Your task to perform on an android device: Open Youtube and go to "Your channel" Image 0: 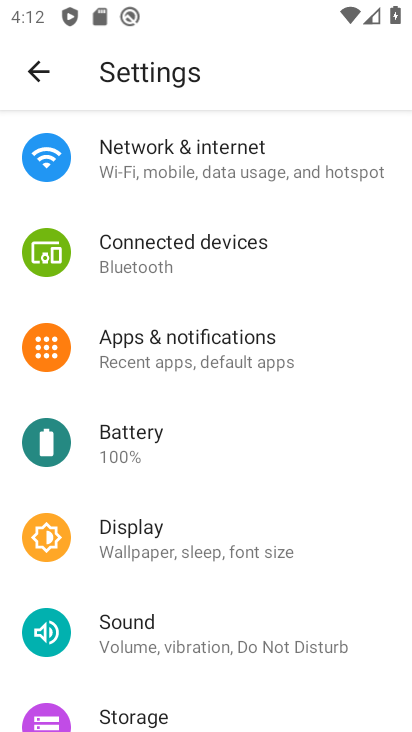
Step 0: press home button
Your task to perform on an android device: Open Youtube and go to "Your channel" Image 1: 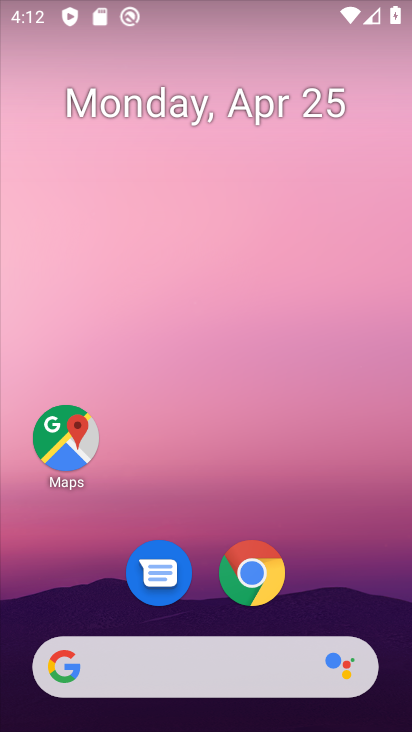
Step 1: drag from (214, 593) to (219, 205)
Your task to perform on an android device: Open Youtube and go to "Your channel" Image 2: 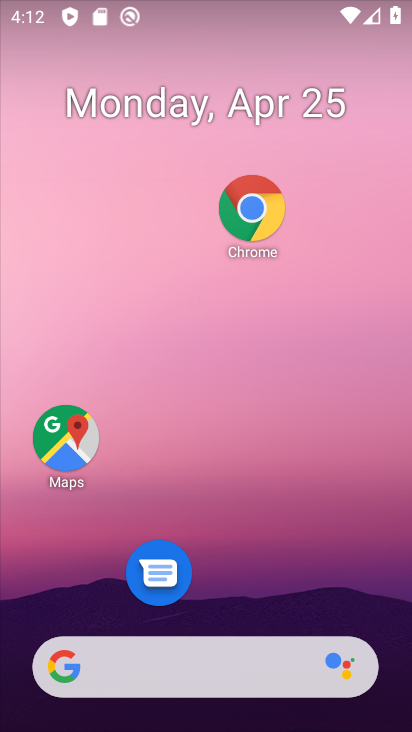
Step 2: click (231, 190)
Your task to perform on an android device: Open Youtube and go to "Your channel" Image 3: 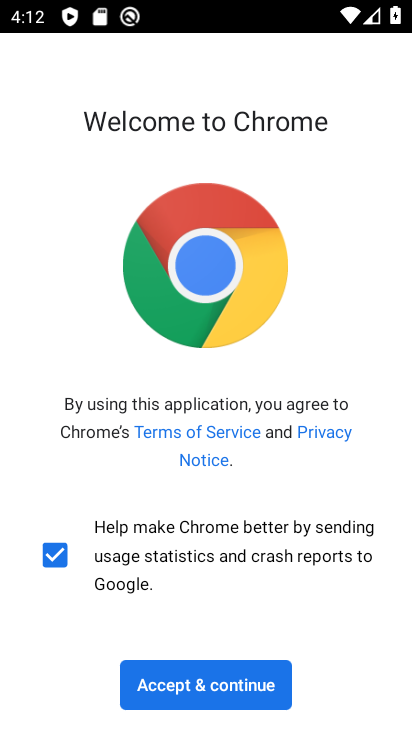
Step 3: press back button
Your task to perform on an android device: Open Youtube and go to "Your channel" Image 4: 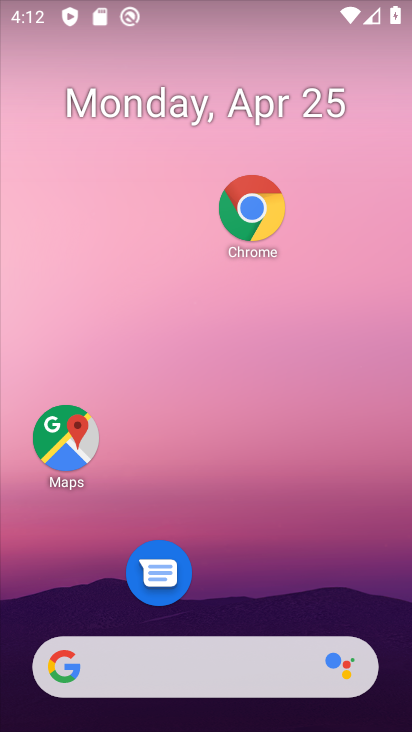
Step 4: drag from (207, 309) to (207, 107)
Your task to perform on an android device: Open Youtube and go to "Your channel" Image 5: 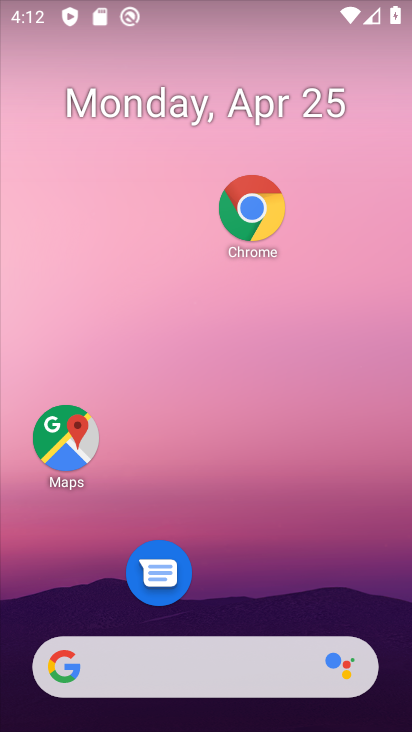
Step 5: drag from (227, 582) to (231, 78)
Your task to perform on an android device: Open Youtube and go to "Your channel" Image 6: 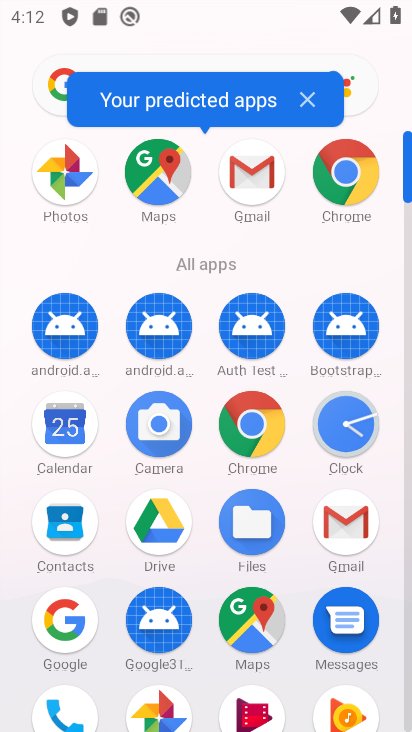
Step 6: drag from (225, 448) to (243, 199)
Your task to perform on an android device: Open Youtube and go to "Your channel" Image 7: 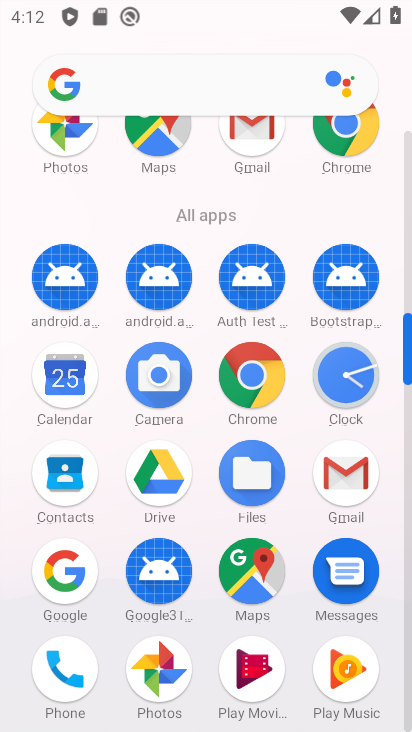
Step 7: drag from (193, 576) to (236, 258)
Your task to perform on an android device: Open Youtube and go to "Your channel" Image 8: 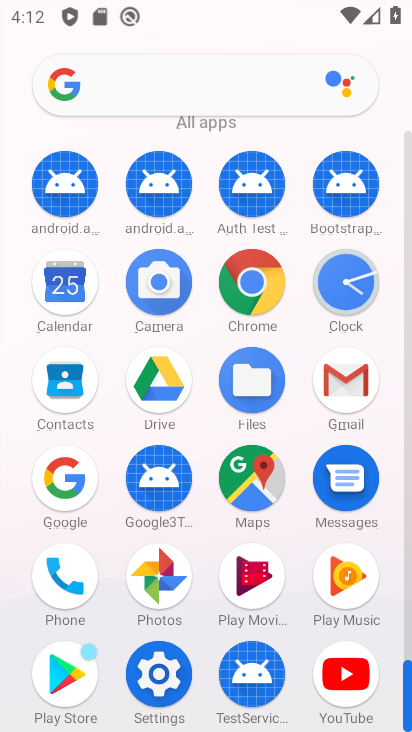
Step 8: click (355, 673)
Your task to perform on an android device: Open Youtube and go to "Your channel" Image 9: 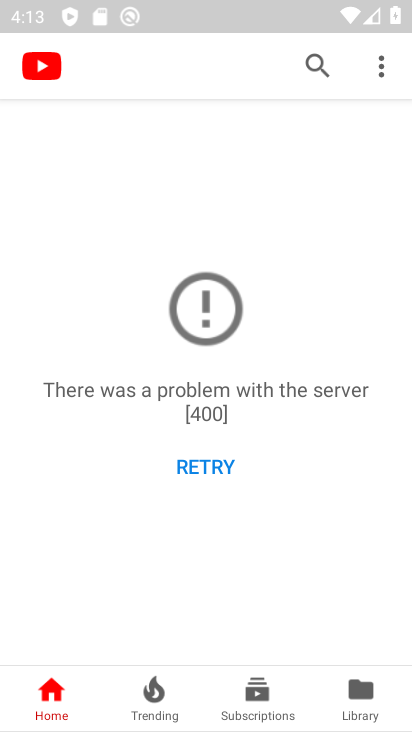
Step 9: click (377, 65)
Your task to perform on an android device: Open Youtube and go to "Your channel" Image 10: 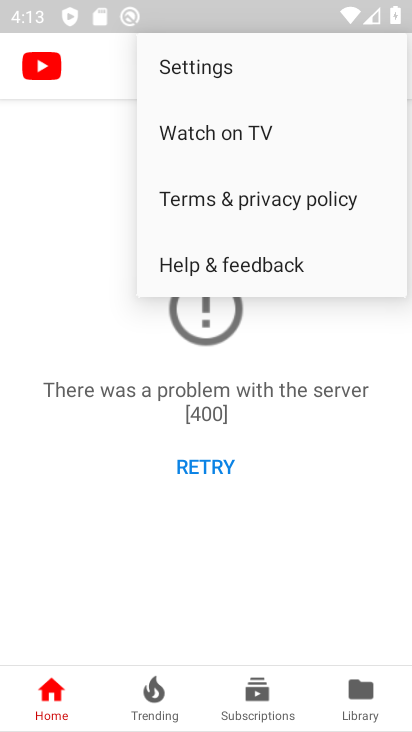
Step 10: click (342, 712)
Your task to perform on an android device: Open Youtube and go to "Your channel" Image 11: 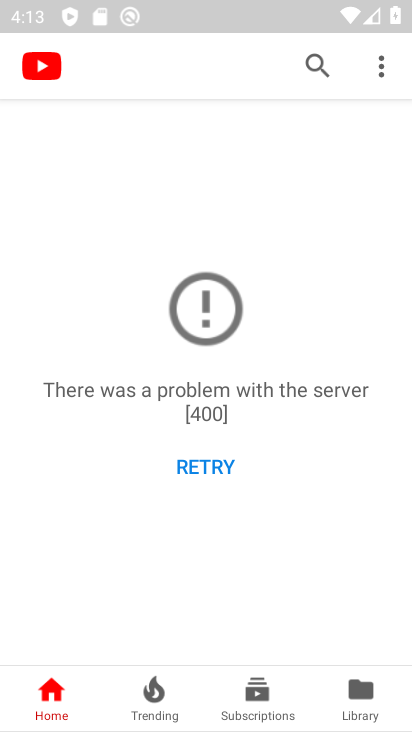
Step 11: click (350, 707)
Your task to perform on an android device: Open Youtube and go to "Your channel" Image 12: 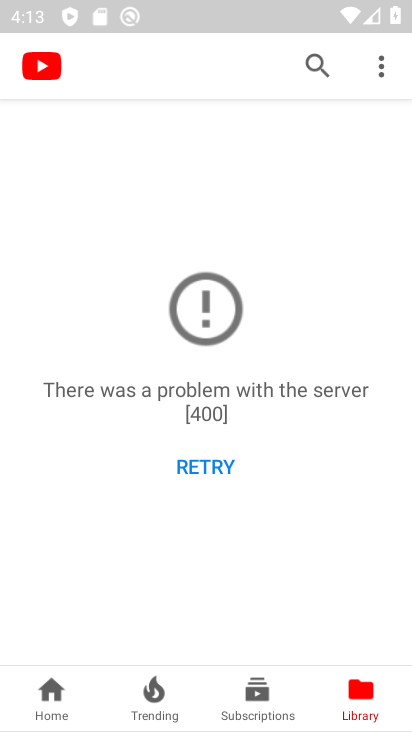
Step 12: task complete